Your task to perform on an android device: uninstall "Yahoo Mail" Image 0: 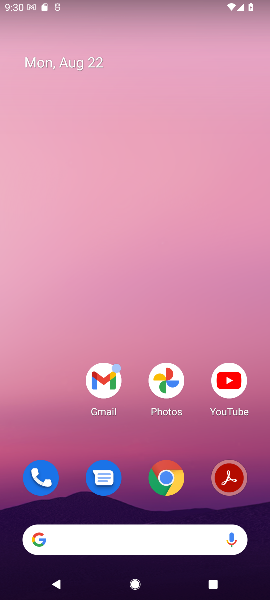
Step 0: drag from (139, 500) to (158, 61)
Your task to perform on an android device: uninstall "Yahoo Mail" Image 1: 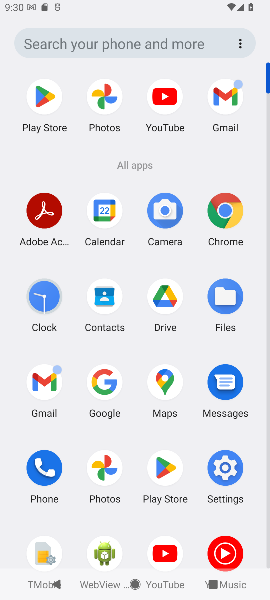
Step 1: click (49, 112)
Your task to perform on an android device: uninstall "Yahoo Mail" Image 2: 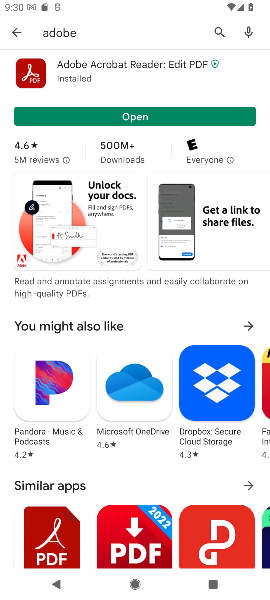
Step 2: click (212, 28)
Your task to perform on an android device: uninstall "Yahoo Mail" Image 3: 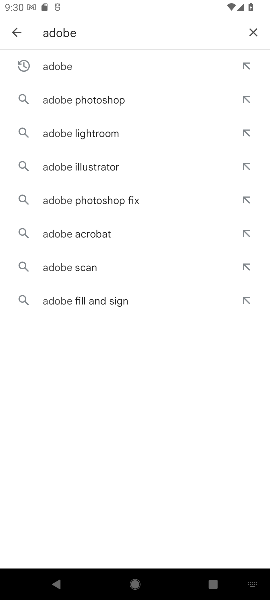
Step 3: click (253, 34)
Your task to perform on an android device: uninstall "Yahoo Mail" Image 4: 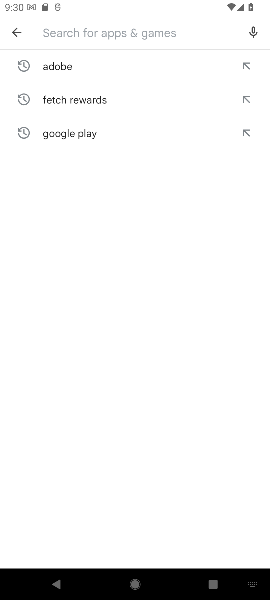
Step 4: type "yahoo mail "
Your task to perform on an android device: uninstall "Yahoo Mail" Image 5: 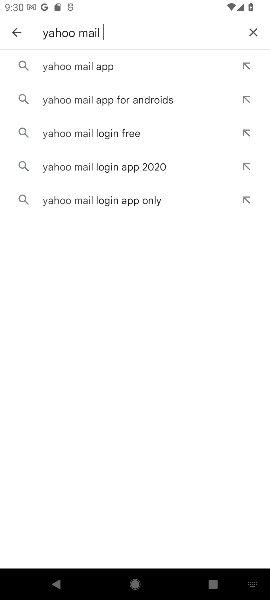
Step 5: click (114, 72)
Your task to perform on an android device: uninstall "Yahoo Mail" Image 6: 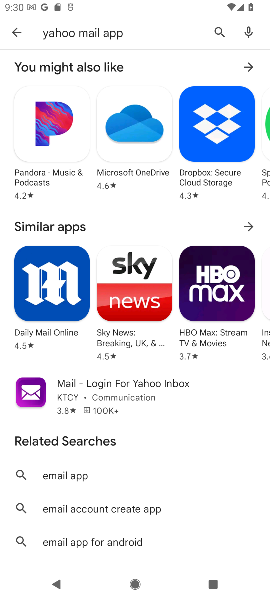
Step 6: click (211, 35)
Your task to perform on an android device: uninstall "Yahoo Mail" Image 7: 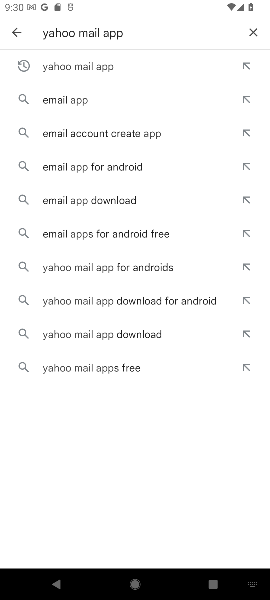
Step 7: click (243, 37)
Your task to perform on an android device: uninstall "Yahoo Mail" Image 8: 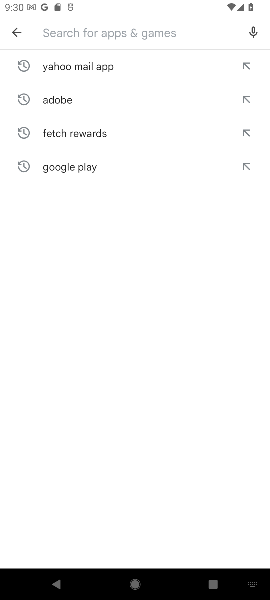
Step 8: click (106, 72)
Your task to perform on an android device: uninstall "Yahoo Mail" Image 9: 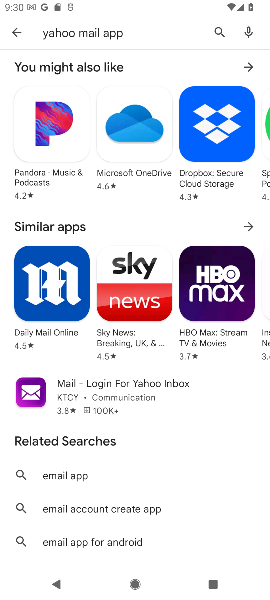
Step 9: task complete